Your task to perform on an android device: turn on showing notifications on the lock screen Image 0: 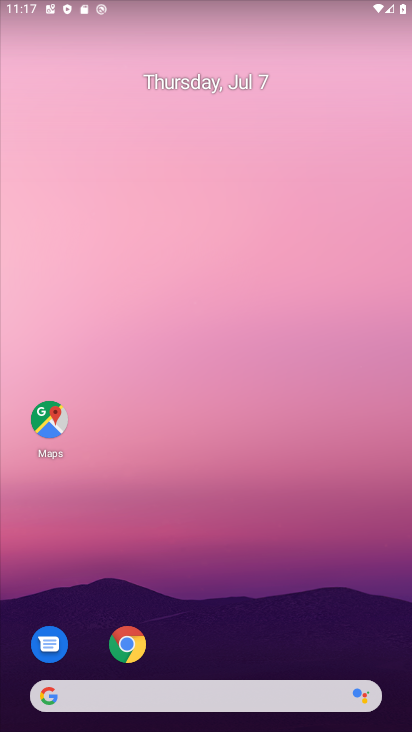
Step 0: click (270, 183)
Your task to perform on an android device: turn on showing notifications on the lock screen Image 1: 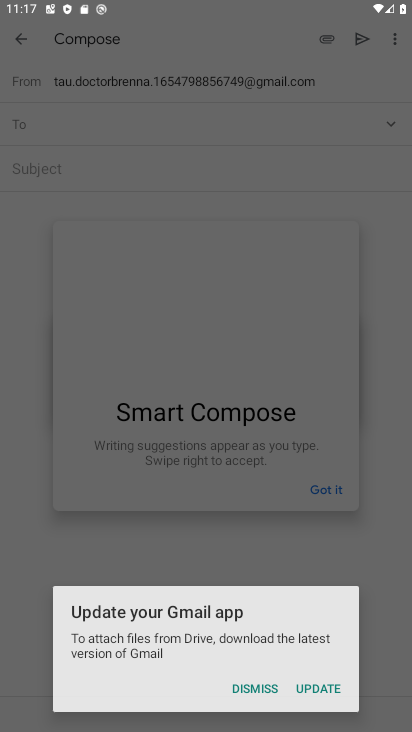
Step 1: press home button
Your task to perform on an android device: turn on showing notifications on the lock screen Image 2: 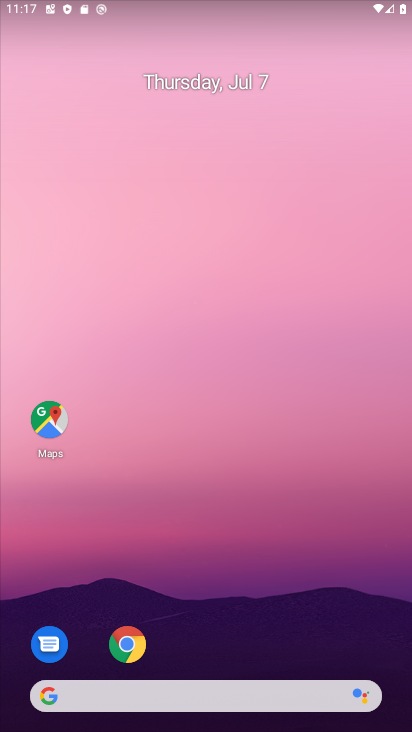
Step 2: drag from (186, 675) to (265, 2)
Your task to perform on an android device: turn on showing notifications on the lock screen Image 3: 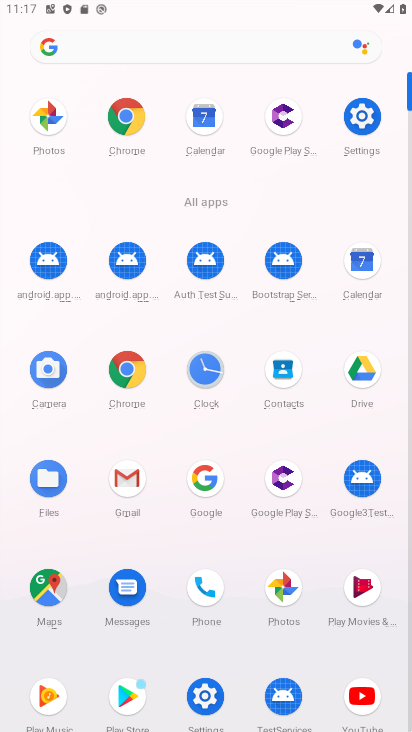
Step 3: click (207, 695)
Your task to perform on an android device: turn on showing notifications on the lock screen Image 4: 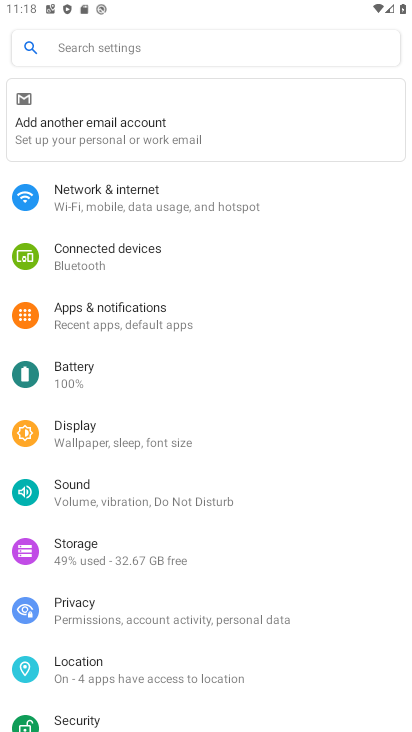
Step 4: drag from (207, 567) to (288, 60)
Your task to perform on an android device: turn on showing notifications on the lock screen Image 5: 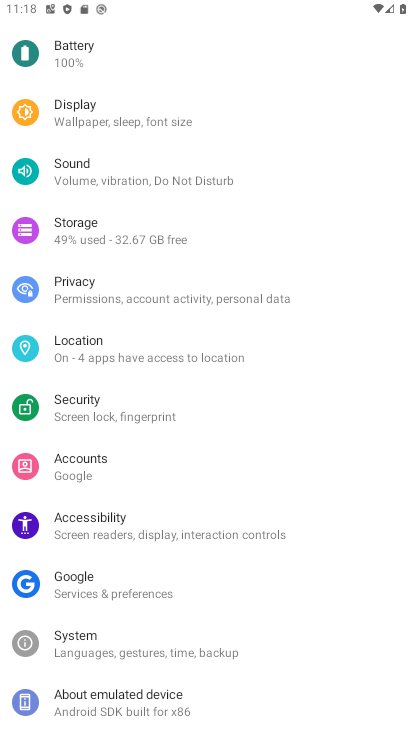
Step 5: drag from (156, 603) to (258, 236)
Your task to perform on an android device: turn on showing notifications on the lock screen Image 6: 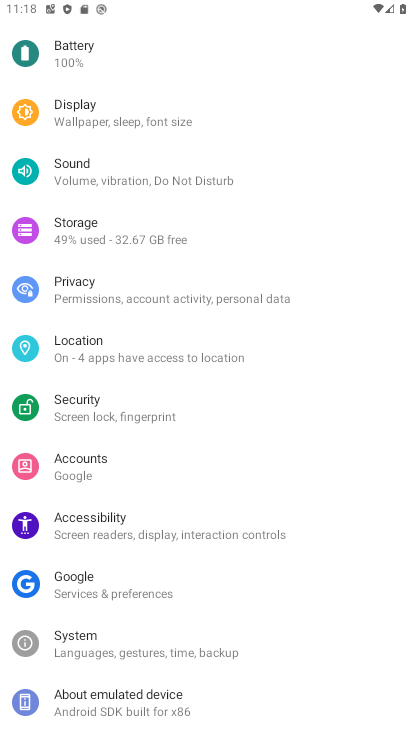
Step 6: drag from (200, 138) to (245, 672)
Your task to perform on an android device: turn on showing notifications on the lock screen Image 7: 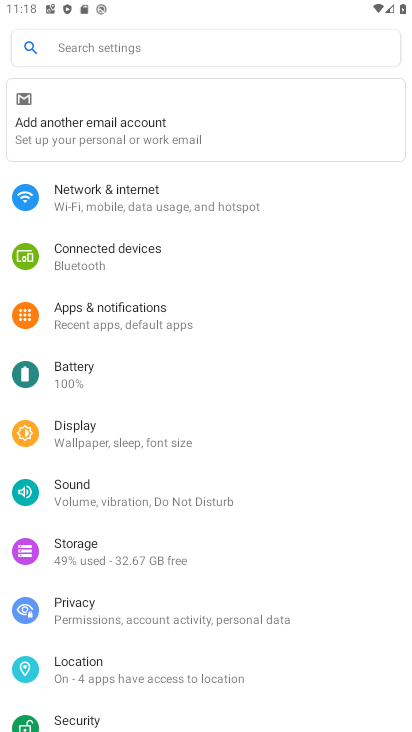
Step 7: click (141, 314)
Your task to perform on an android device: turn on showing notifications on the lock screen Image 8: 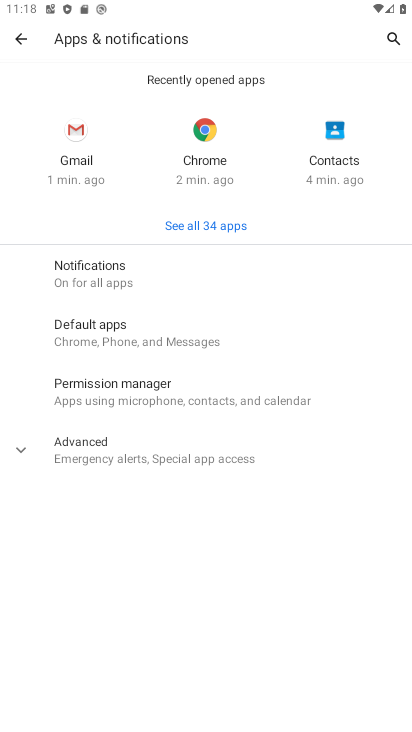
Step 8: click (173, 276)
Your task to perform on an android device: turn on showing notifications on the lock screen Image 9: 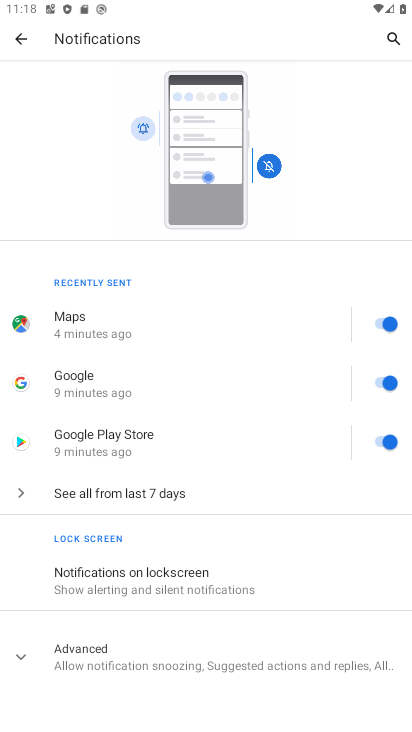
Step 9: drag from (167, 516) to (243, 173)
Your task to perform on an android device: turn on showing notifications on the lock screen Image 10: 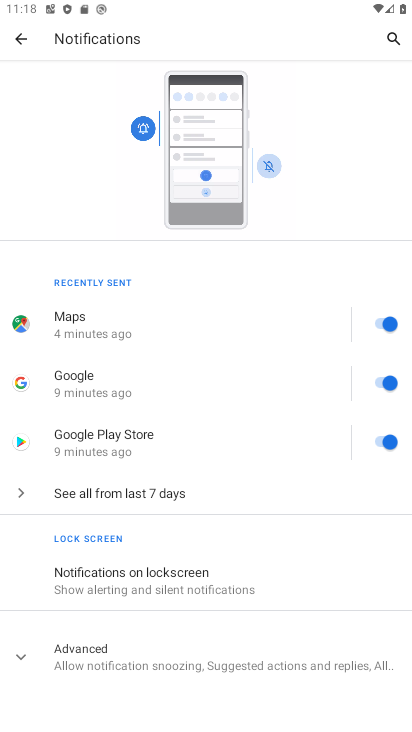
Step 10: click (145, 575)
Your task to perform on an android device: turn on showing notifications on the lock screen Image 11: 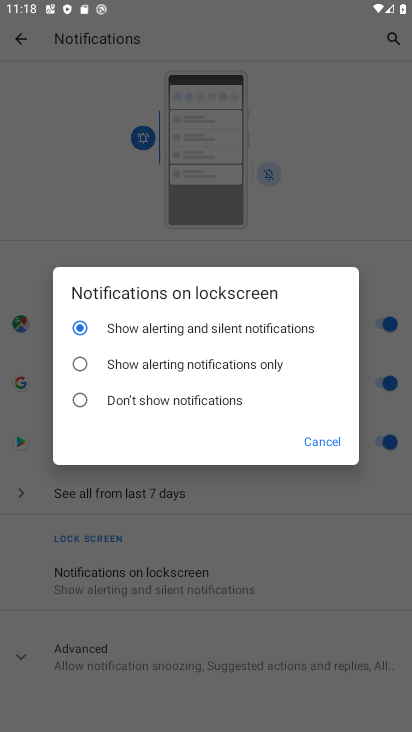
Step 11: drag from (181, 524) to (264, 175)
Your task to perform on an android device: turn on showing notifications on the lock screen Image 12: 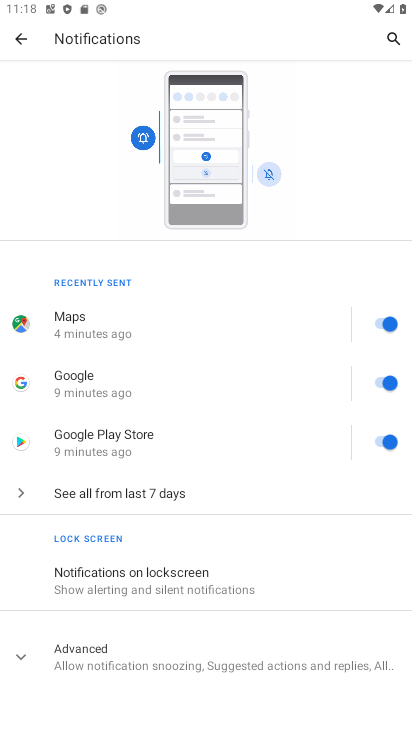
Step 12: click (147, 570)
Your task to perform on an android device: turn on showing notifications on the lock screen Image 13: 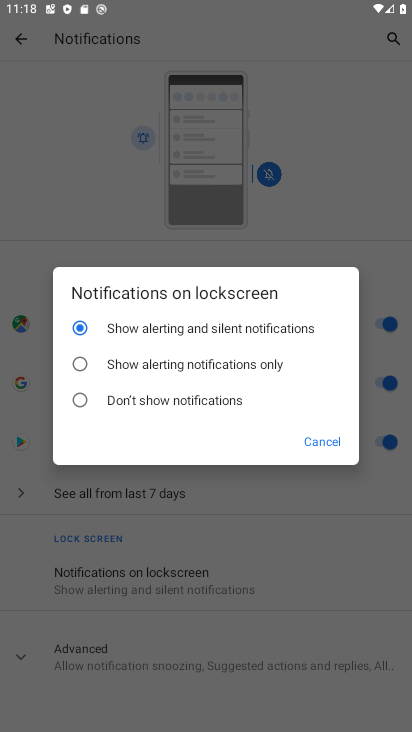
Step 13: click (104, 363)
Your task to perform on an android device: turn on showing notifications on the lock screen Image 14: 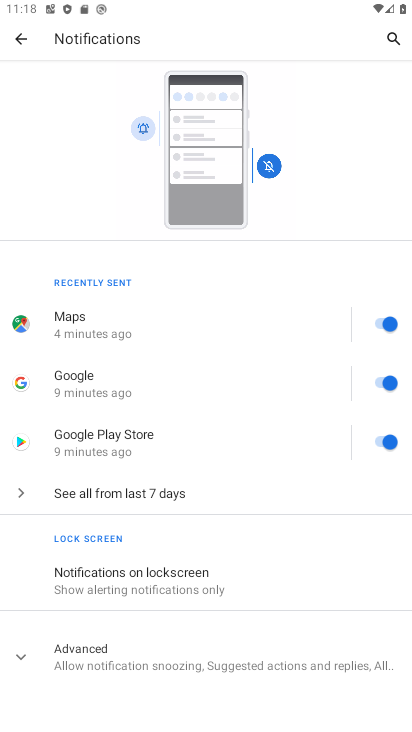
Step 14: task complete